Your task to perform on an android device: Open settings Image 0: 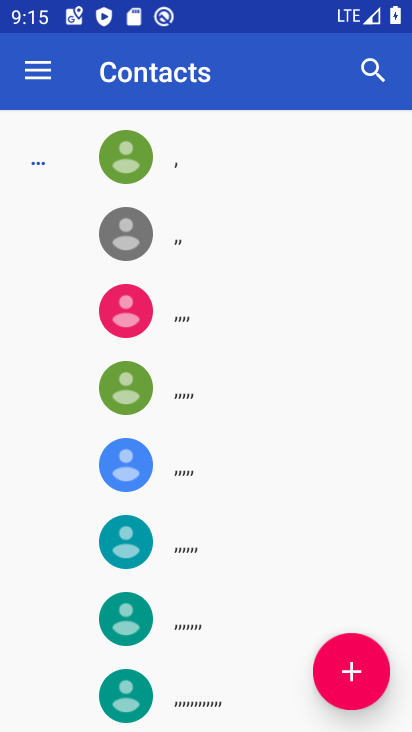
Step 0: press home button
Your task to perform on an android device: Open settings Image 1: 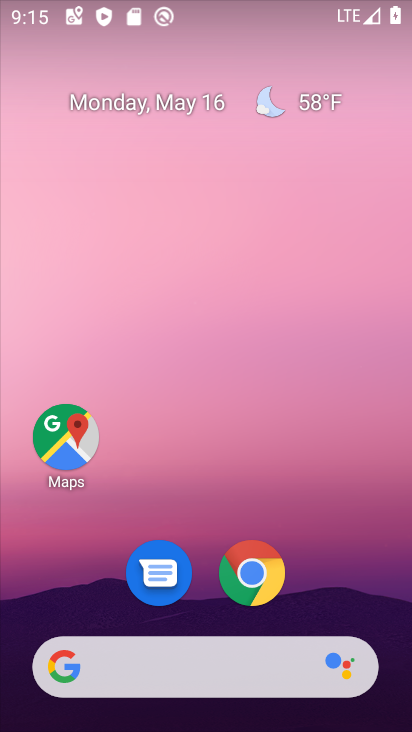
Step 1: drag from (225, 723) to (161, 186)
Your task to perform on an android device: Open settings Image 2: 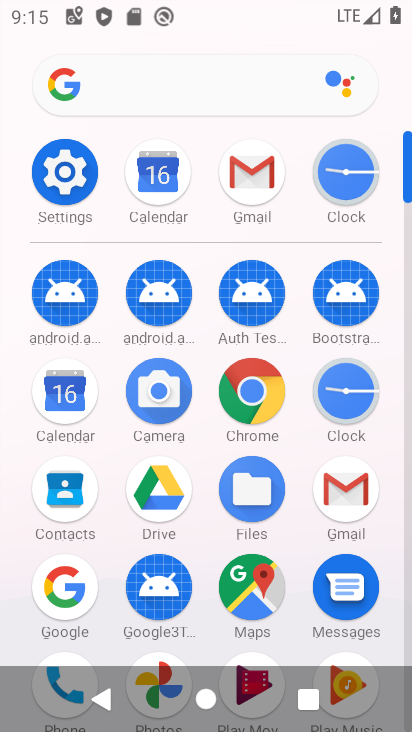
Step 2: click (64, 166)
Your task to perform on an android device: Open settings Image 3: 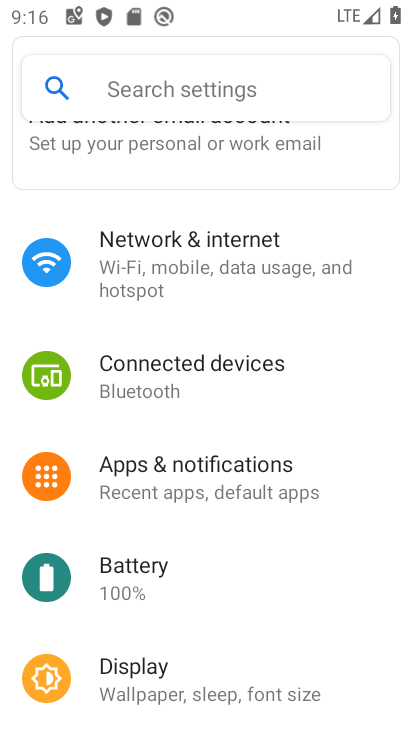
Step 3: task complete